Your task to perform on an android device: Clear the shopping cart on costco. Add "usb-c to usb-b" to the cart on costco, then select checkout. Image 0: 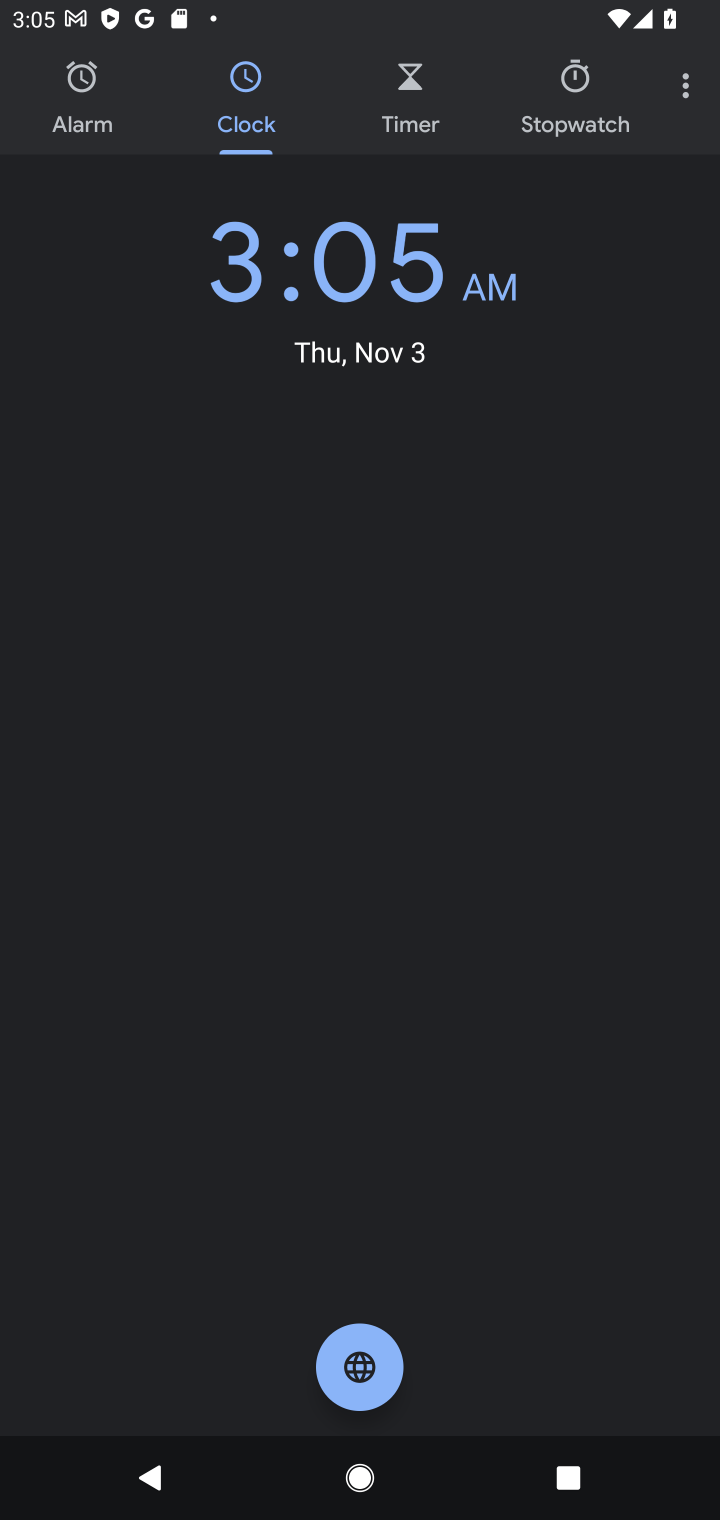
Step 0: press home button
Your task to perform on an android device: Clear the shopping cart on costco. Add "usb-c to usb-b" to the cart on costco, then select checkout. Image 1: 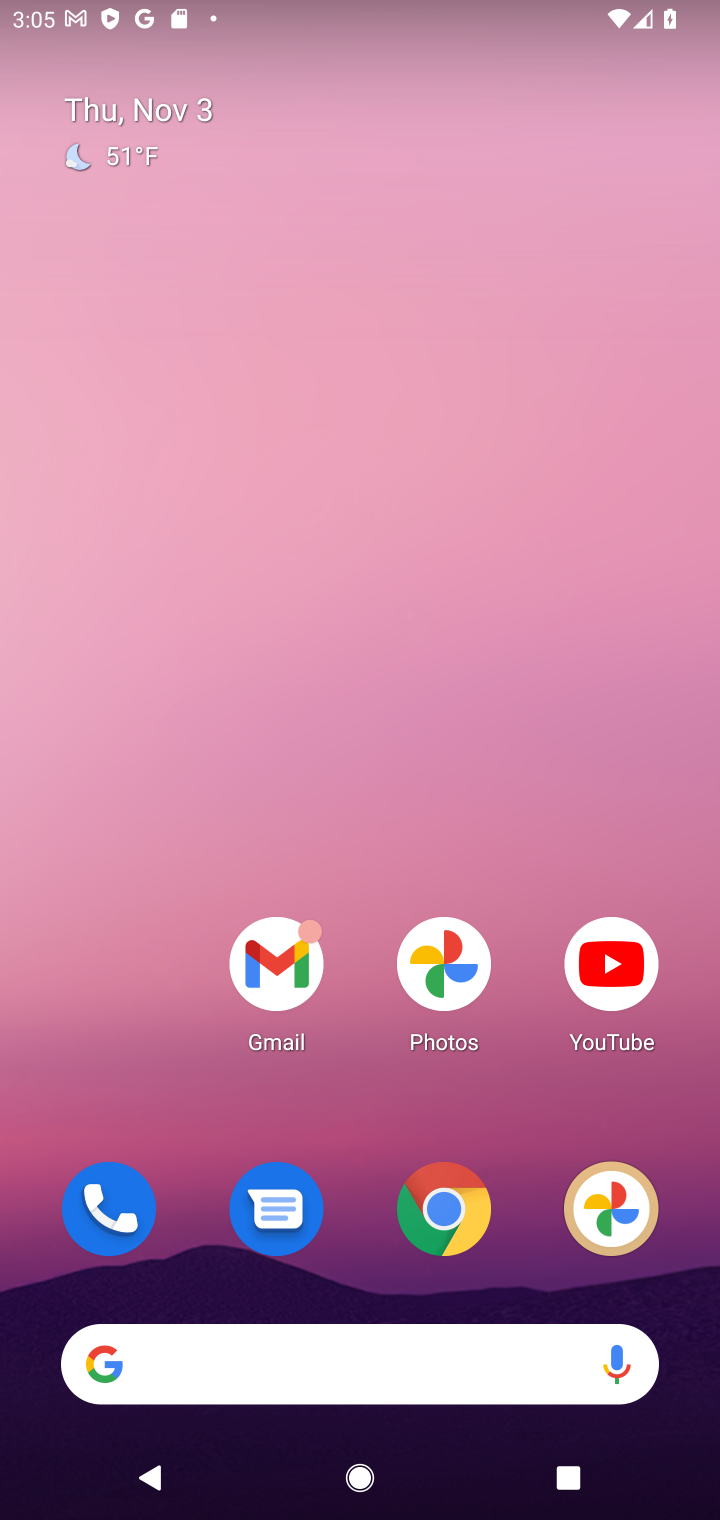
Step 1: click (458, 1238)
Your task to perform on an android device: Clear the shopping cart on costco. Add "usb-c to usb-b" to the cart on costco, then select checkout. Image 2: 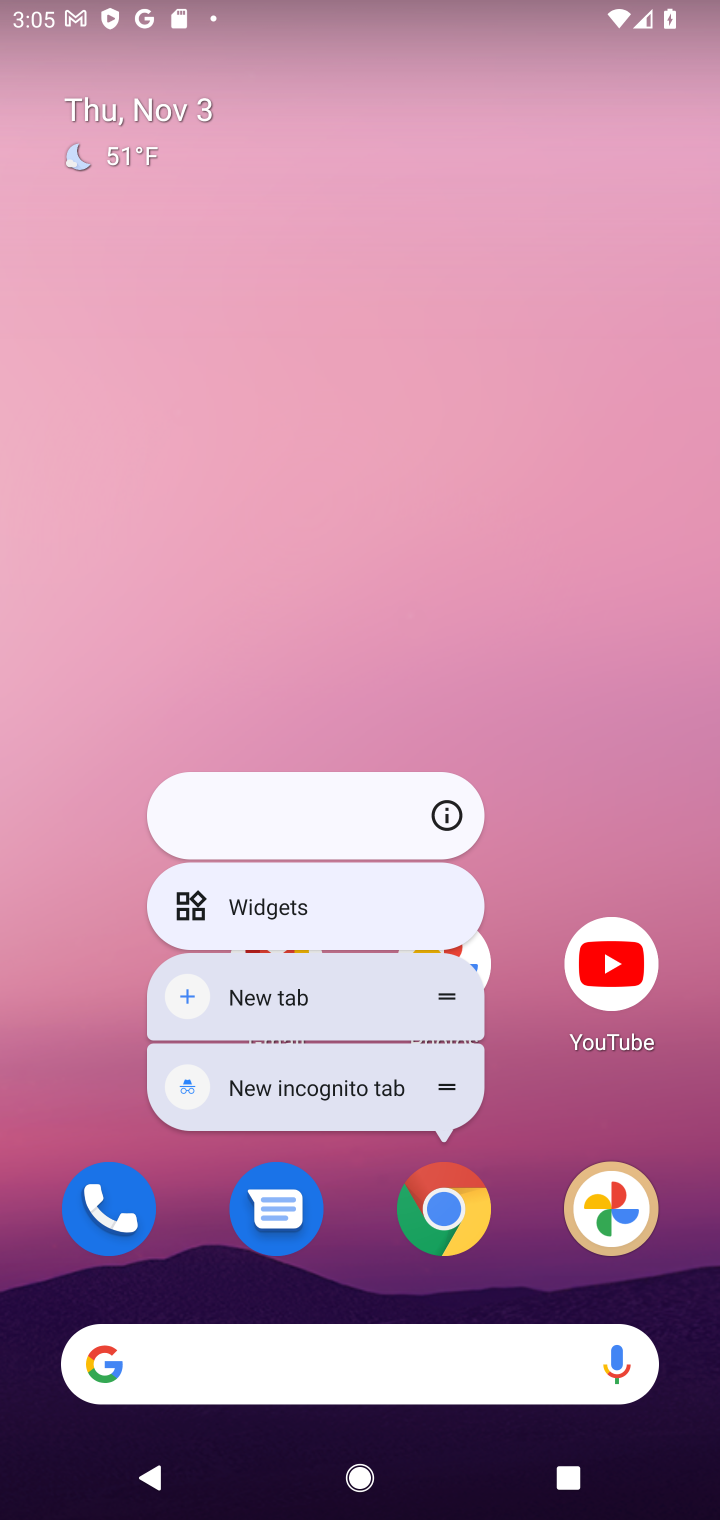
Step 2: click (452, 1185)
Your task to perform on an android device: Clear the shopping cart on costco. Add "usb-c to usb-b" to the cart on costco, then select checkout. Image 3: 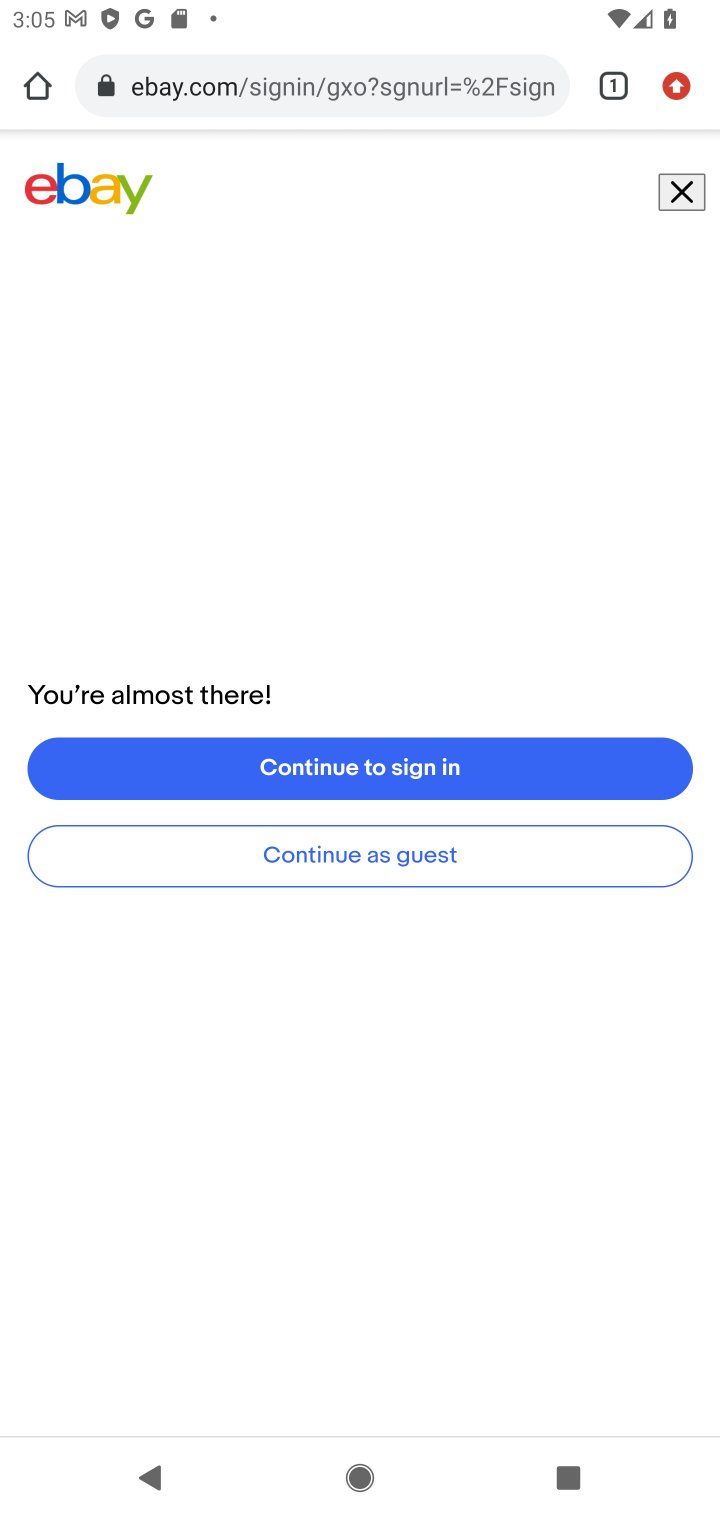
Step 3: click (415, 78)
Your task to perform on an android device: Clear the shopping cart on costco. Add "usb-c to usb-b" to the cart on costco, then select checkout. Image 4: 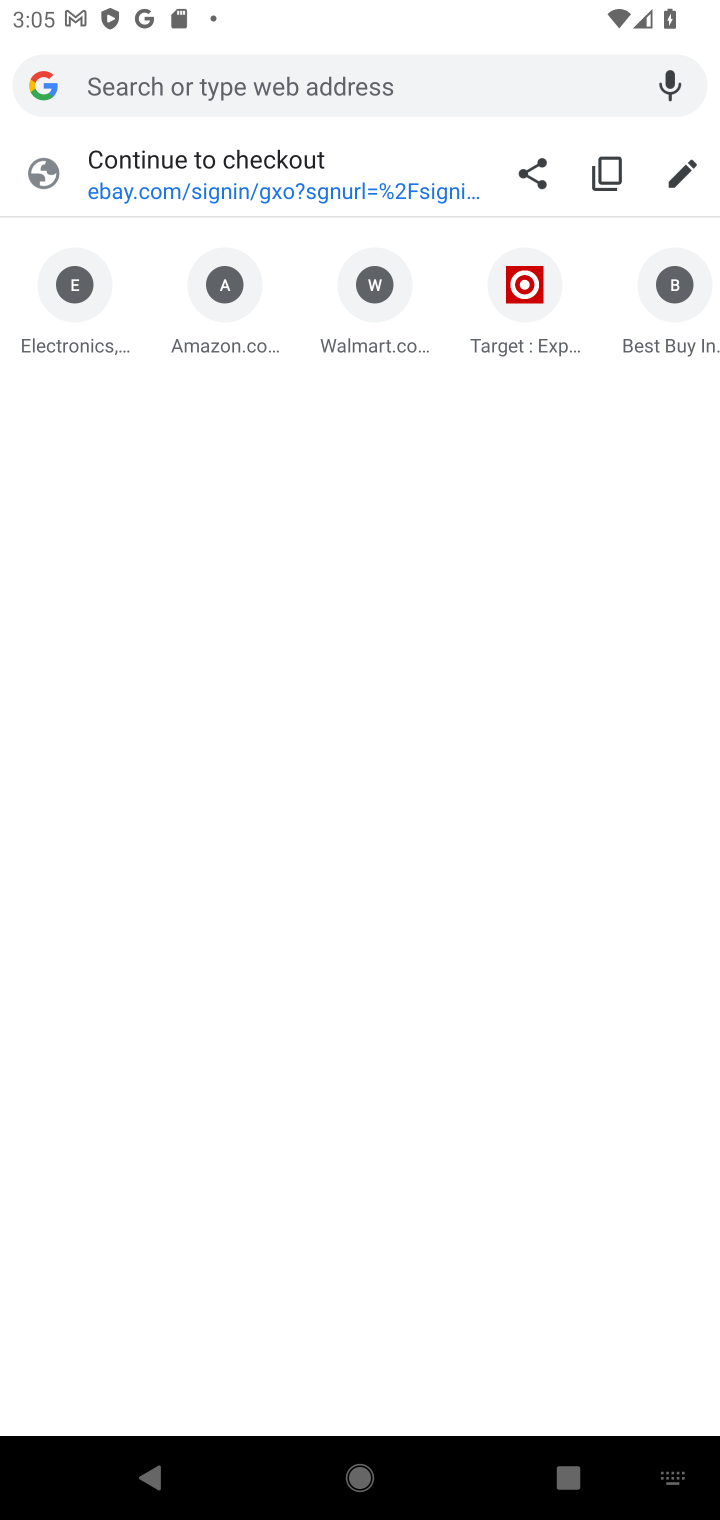
Step 4: type "costco"
Your task to perform on an android device: Clear the shopping cart on costco. Add "usb-c to usb-b" to the cart on costco, then select checkout. Image 5: 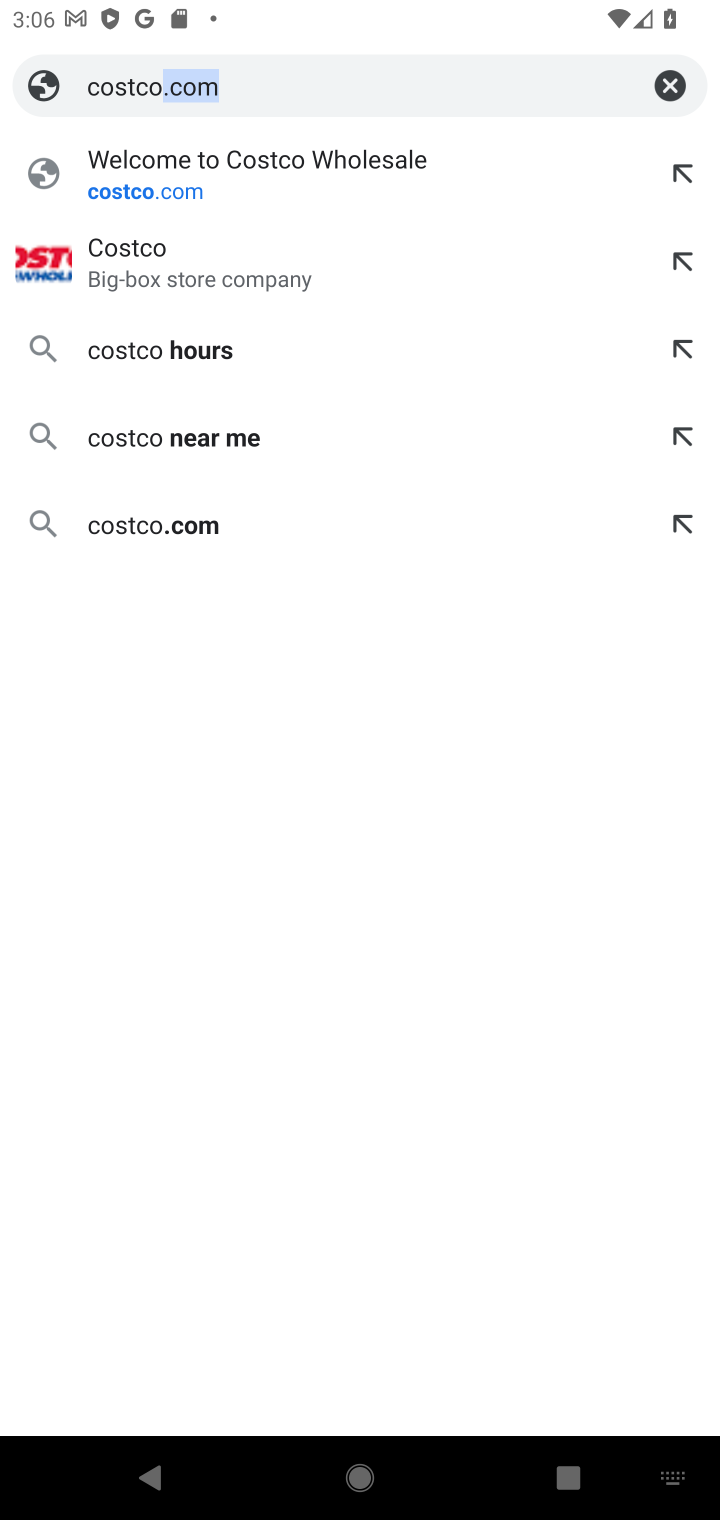
Step 5: click (261, 193)
Your task to perform on an android device: Clear the shopping cart on costco. Add "usb-c to usb-b" to the cart on costco, then select checkout. Image 6: 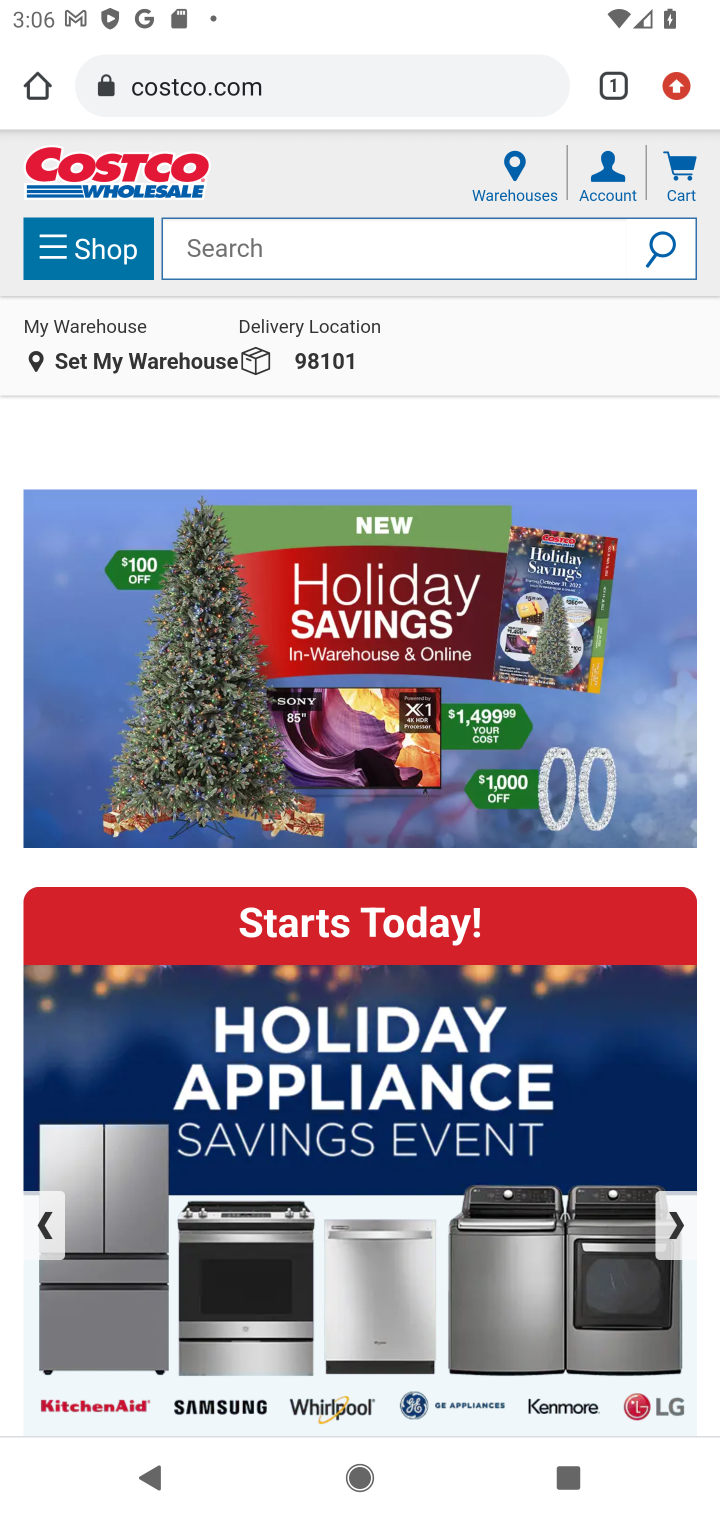
Step 6: click (408, 242)
Your task to perform on an android device: Clear the shopping cart on costco. Add "usb-c to usb-b" to the cart on costco, then select checkout. Image 7: 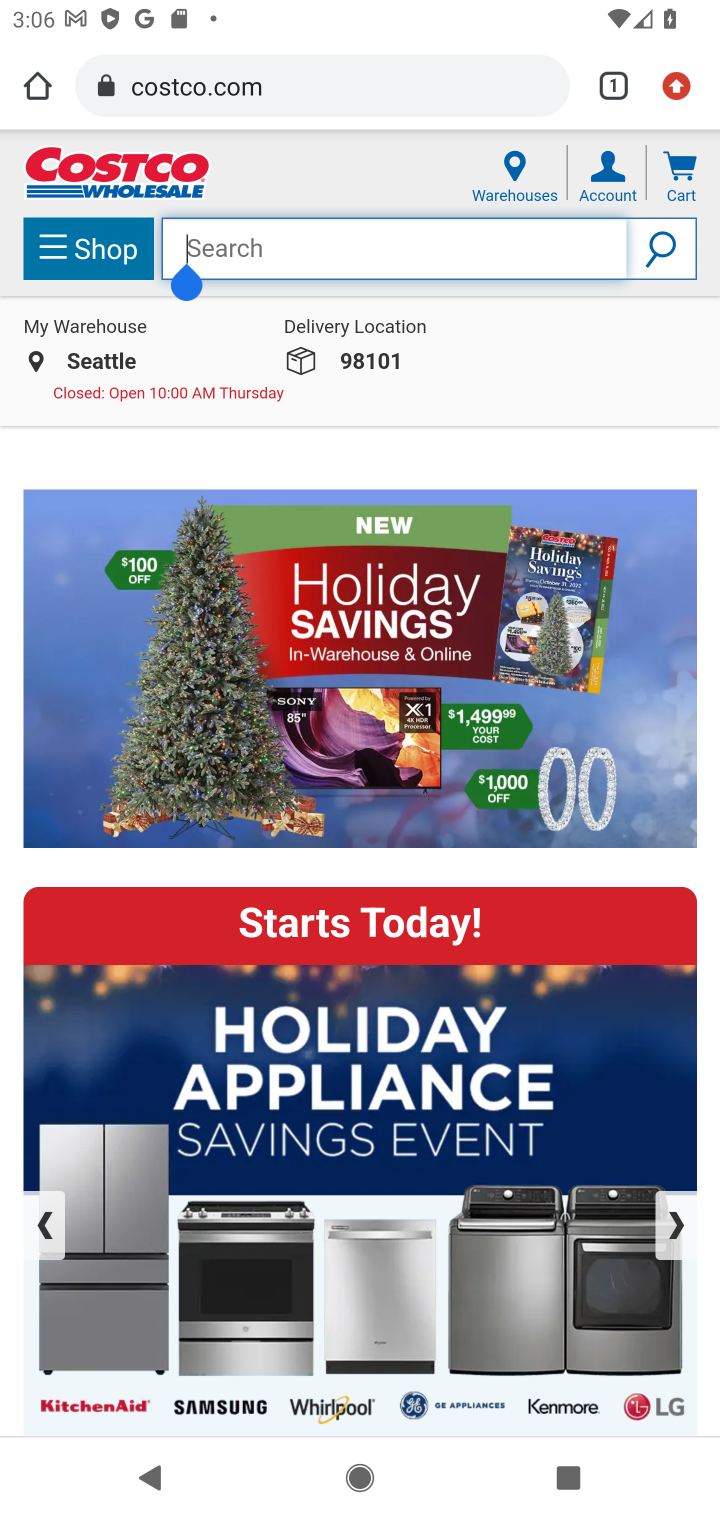
Step 7: type "usb-c to usb-b"
Your task to perform on an android device: Clear the shopping cart on costco. Add "usb-c to usb-b" to the cart on costco, then select checkout. Image 8: 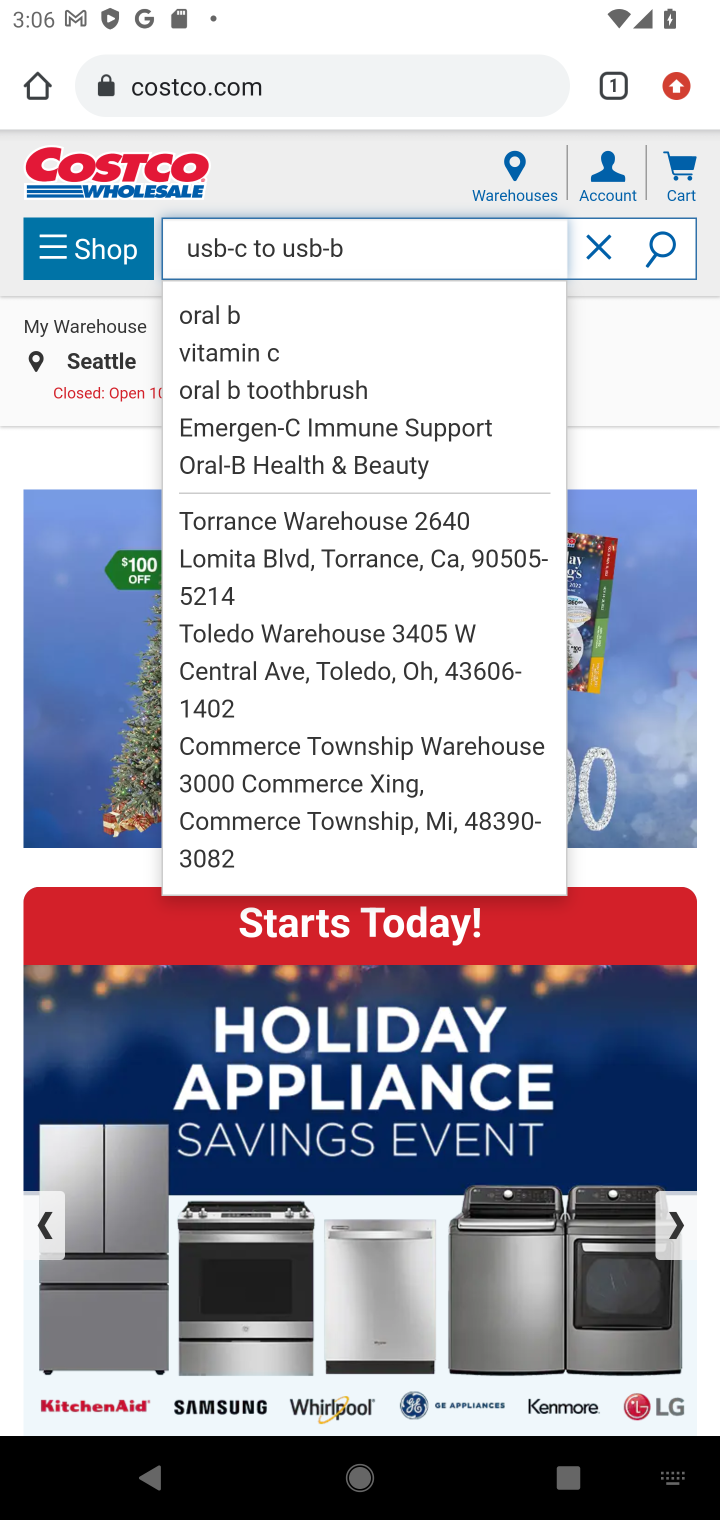
Step 8: press enter
Your task to perform on an android device: Clear the shopping cart on costco. Add "usb-c to usb-b" to the cart on costco, then select checkout. Image 9: 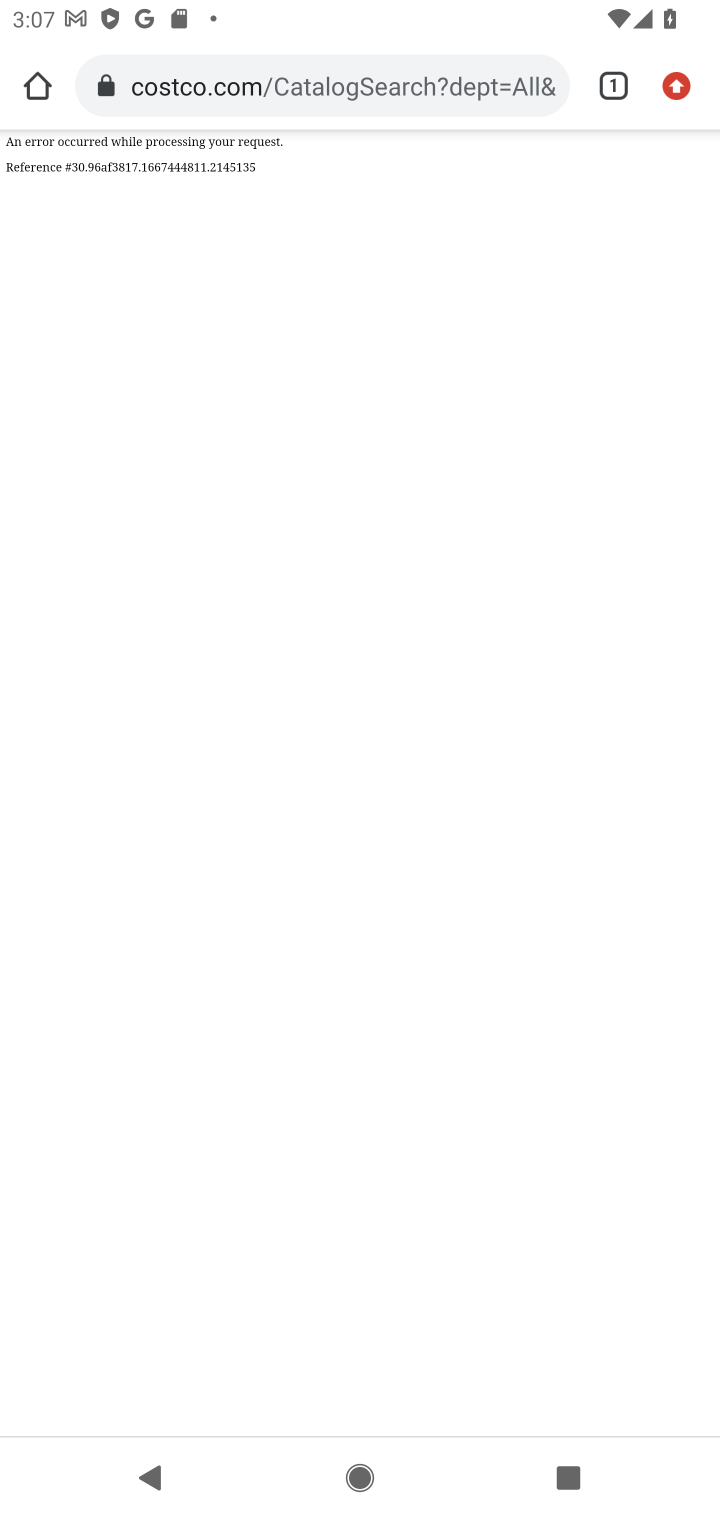
Step 9: task complete